Your task to perform on an android device: Toggle the flashlight Image 0: 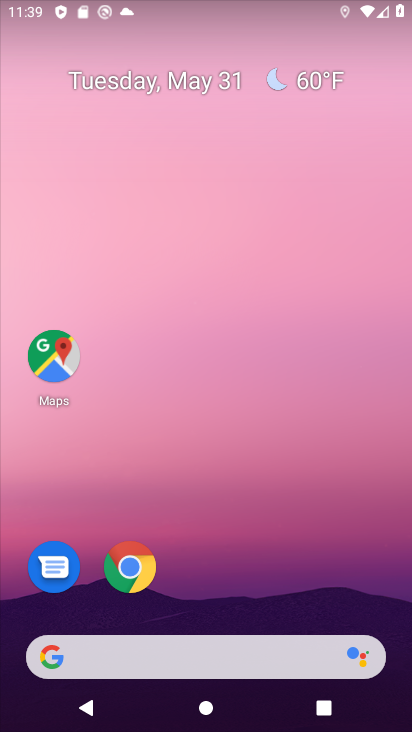
Step 0: drag from (174, 3) to (235, 518)
Your task to perform on an android device: Toggle the flashlight Image 1: 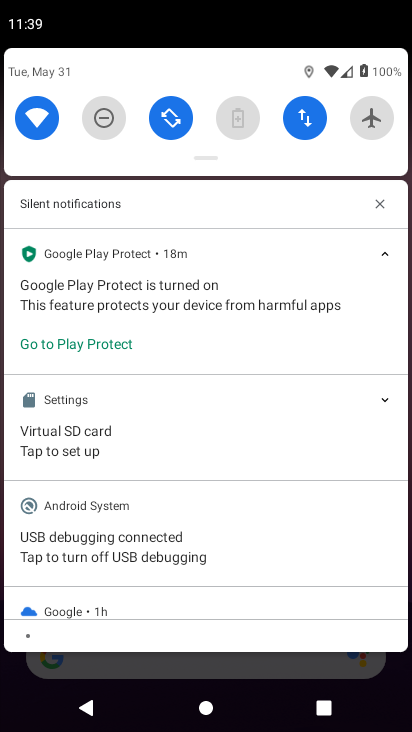
Step 1: task complete